Your task to perform on an android device: What's US dollar exchange rate against the Indian Rupee? Image 0: 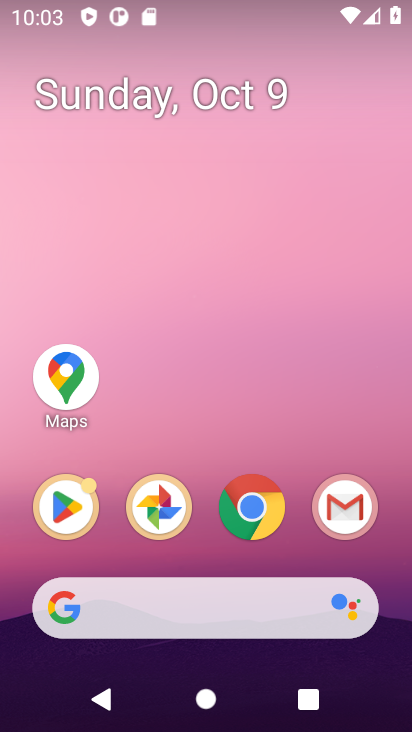
Step 0: drag from (205, 563) to (170, 21)
Your task to perform on an android device: What's US dollar exchange rate against the Indian Rupee? Image 1: 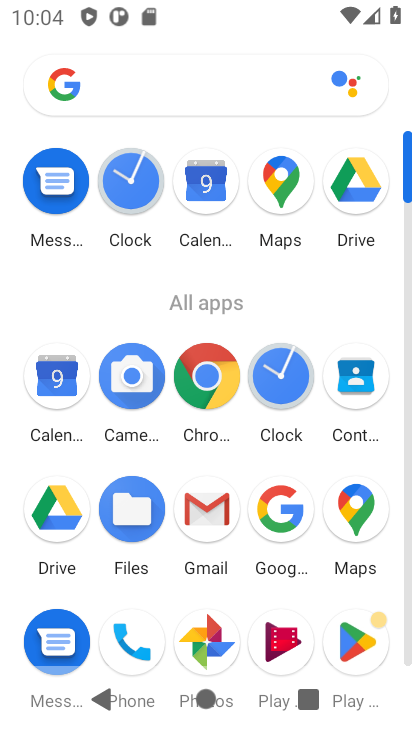
Step 1: click (206, 379)
Your task to perform on an android device: What's US dollar exchange rate against the Indian Rupee? Image 2: 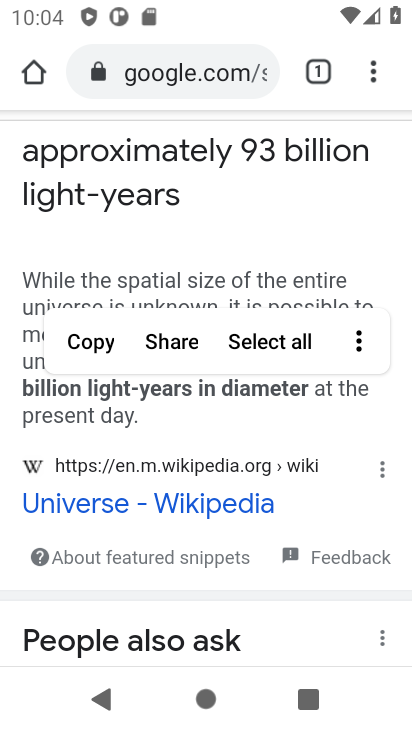
Step 2: click (233, 83)
Your task to perform on an android device: What's US dollar exchange rate against the Indian Rupee? Image 3: 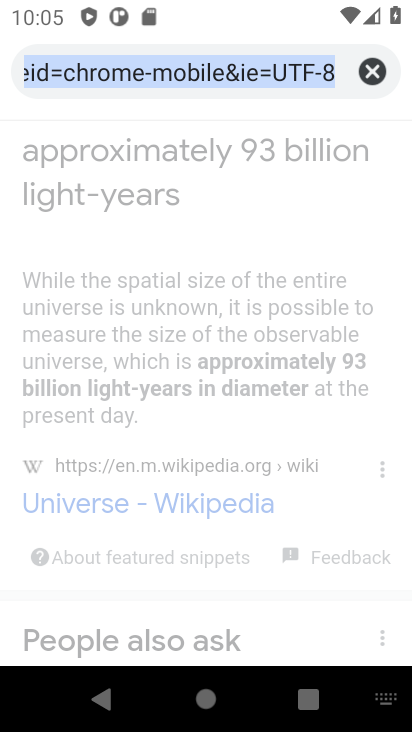
Step 3: type "What's US dollar exchange rate against the Indian Rupee?"
Your task to perform on an android device: What's US dollar exchange rate against the Indian Rupee? Image 4: 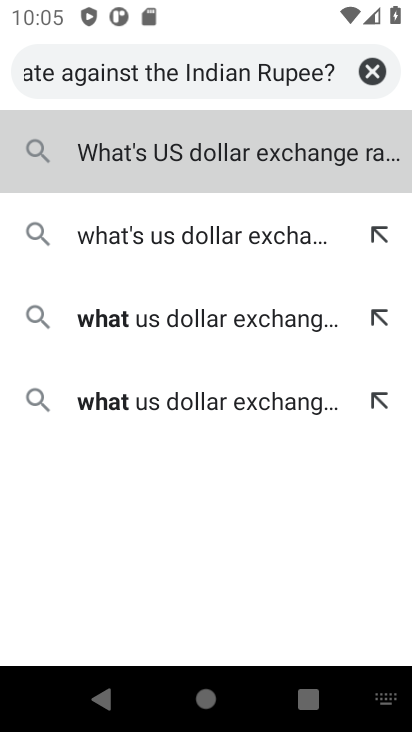
Step 4: press enter
Your task to perform on an android device: What's US dollar exchange rate against the Indian Rupee? Image 5: 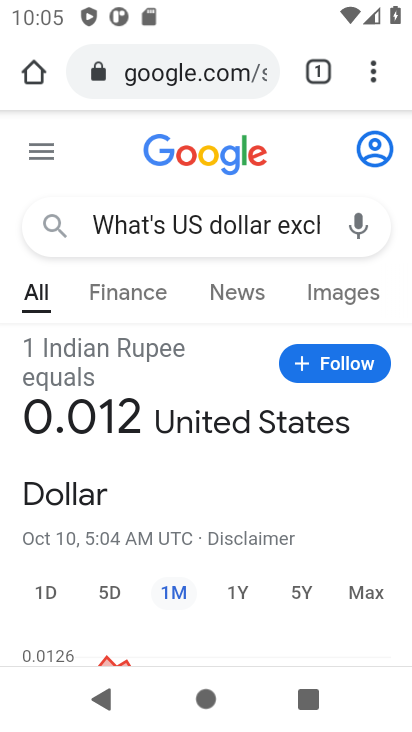
Step 5: task complete